Your task to perform on an android device: Search for Italian restaurants on Maps Image 0: 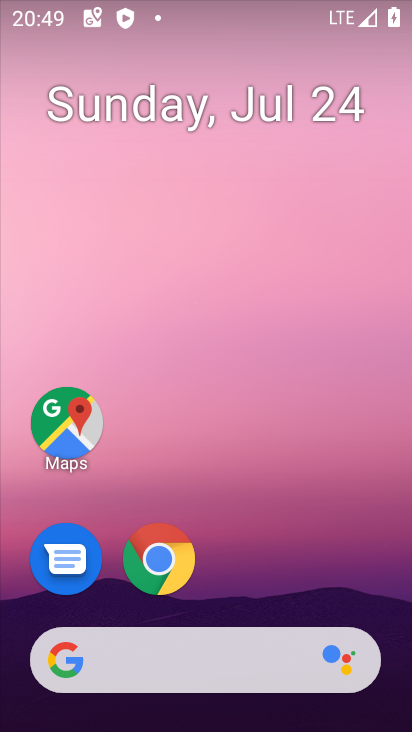
Step 0: drag from (395, 528) to (381, 142)
Your task to perform on an android device: Search for Italian restaurants on Maps Image 1: 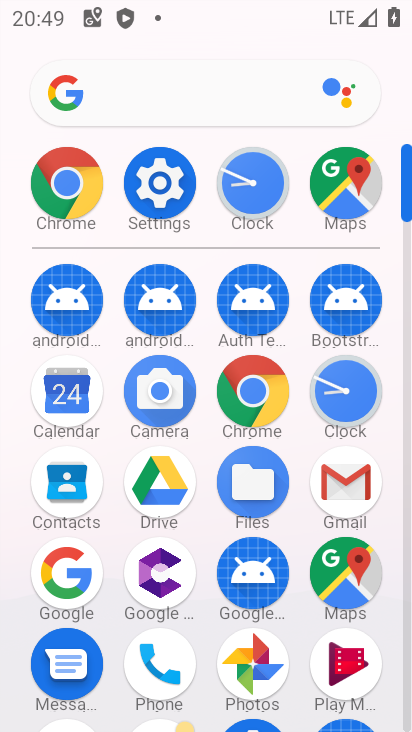
Step 1: click (340, 197)
Your task to perform on an android device: Search for Italian restaurants on Maps Image 2: 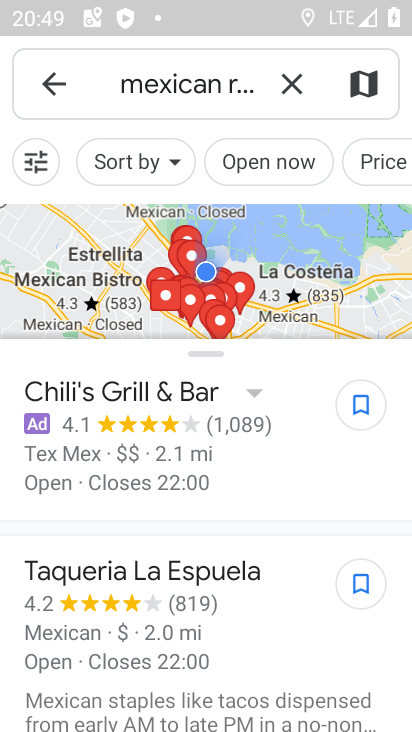
Step 2: press back button
Your task to perform on an android device: Search for Italian restaurants on Maps Image 3: 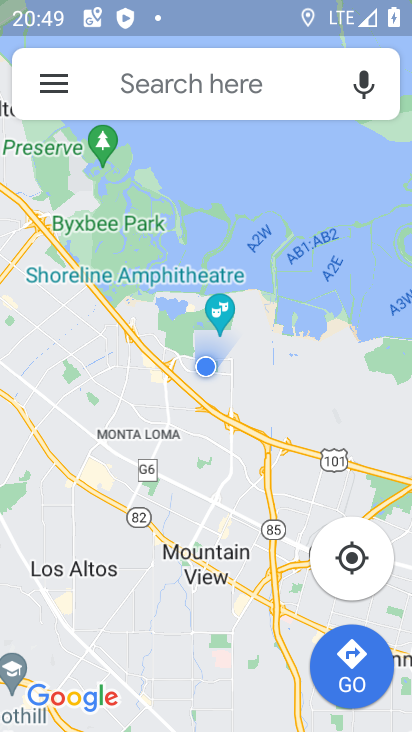
Step 3: click (268, 94)
Your task to perform on an android device: Search for Italian restaurants on Maps Image 4: 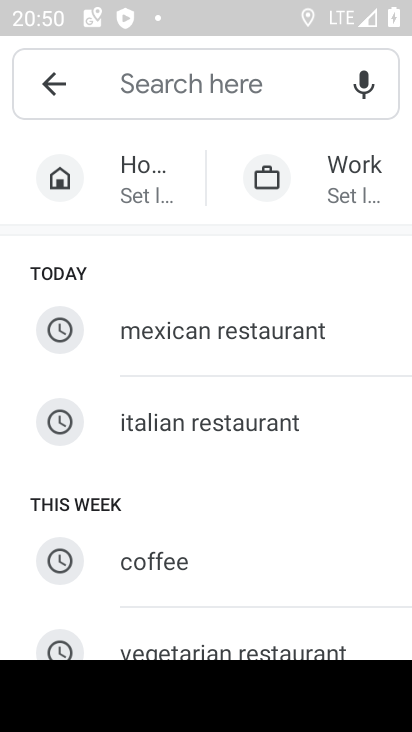
Step 4: type "italian restaurants"
Your task to perform on an android device: Search for Italian restaurants on Maps Image 5: 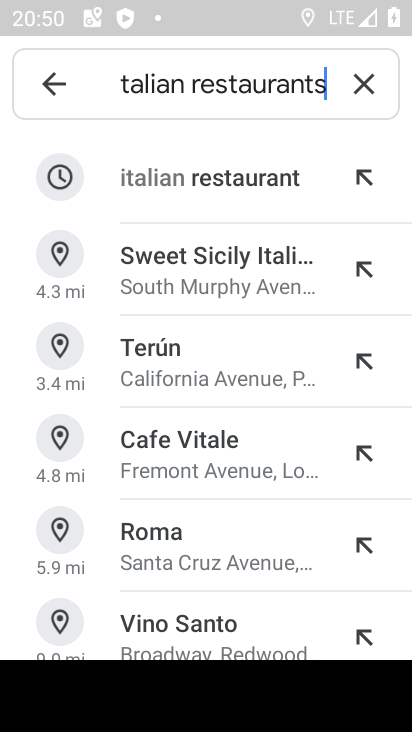
Step 5: click (285, 192)
Your task to perform on an android device: Search for Italian restaurants on Maps Image 6: 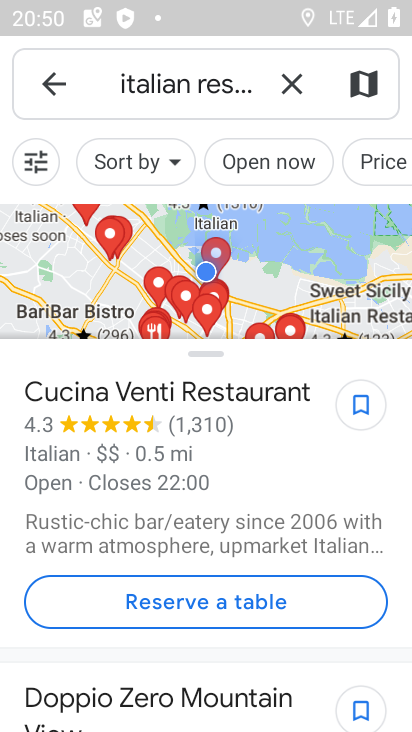
Step 6: task complete